Your task to perform on an android device: Open my contact list Image 0: 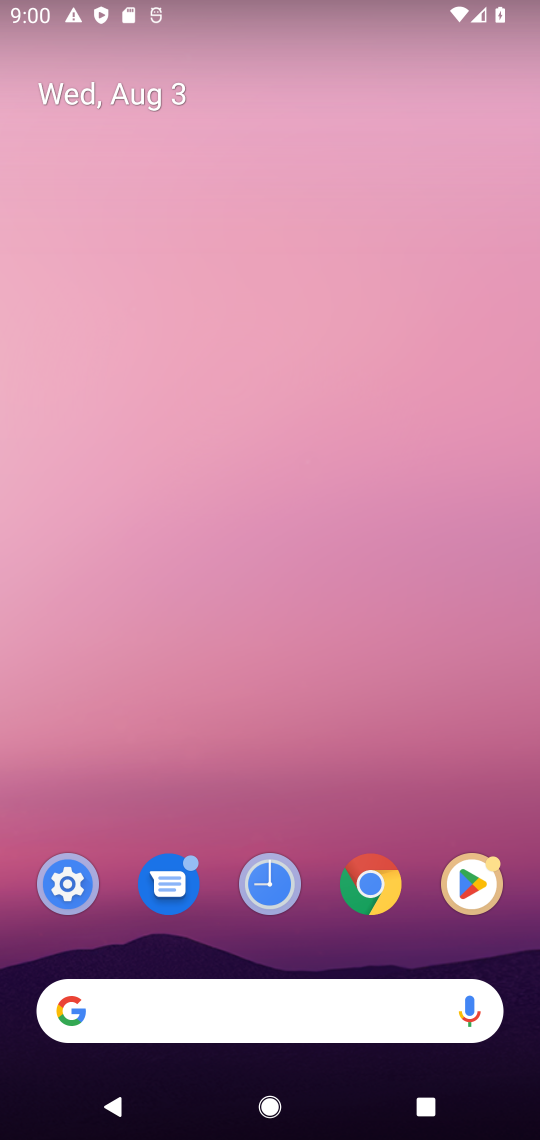
Step 0: drag from (284, 555) to (212, 219)
Your task to perform on an android device: Open my contact list Image 1: 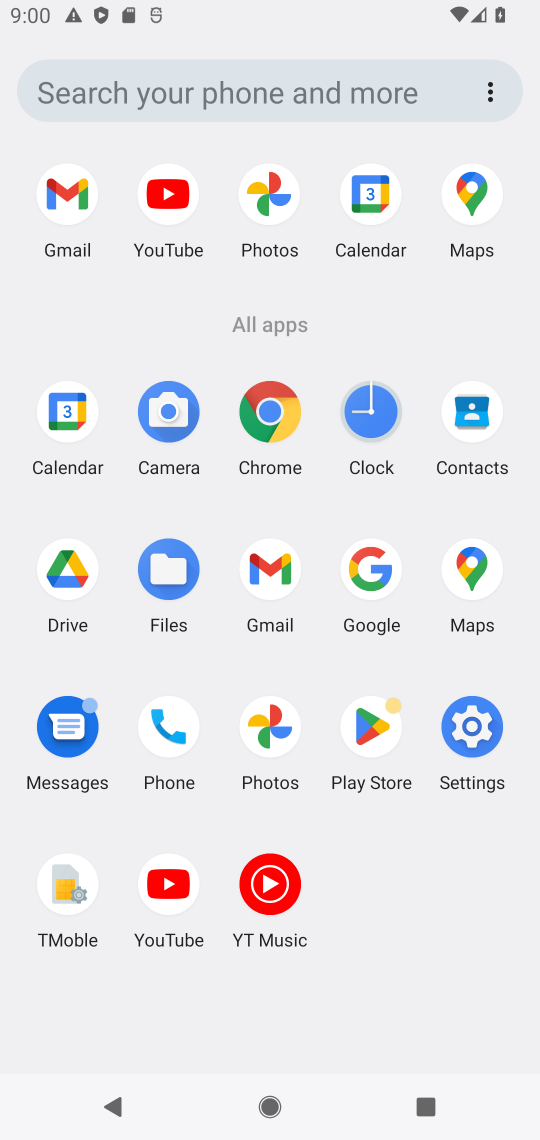
Step 1: click (459, 422)
Your task to perform on an android device: Open my contact list Image 2: 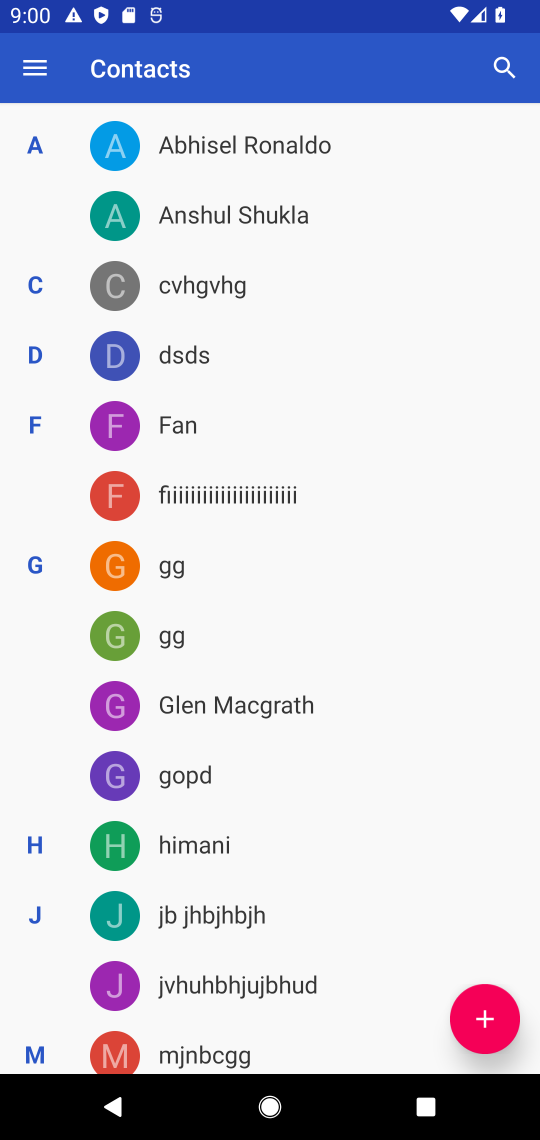
Step 2: task complete